Your task to perform on an android device: clear all cookies in the chrome app Image 0: 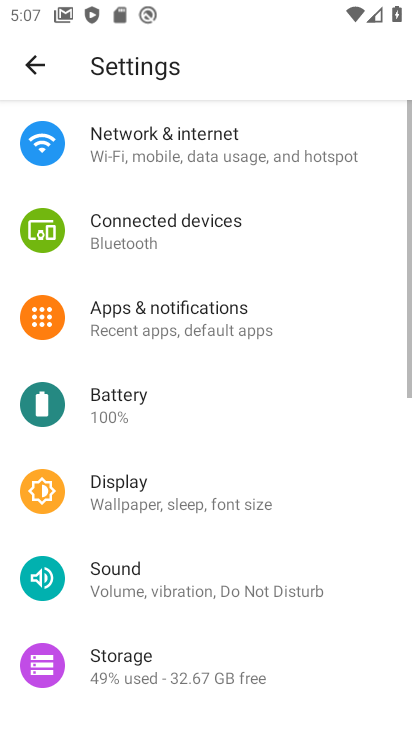
Step 0: click (245, 152)
Your task to perform on an android device: clear all cookies in the chrome app Image 1: 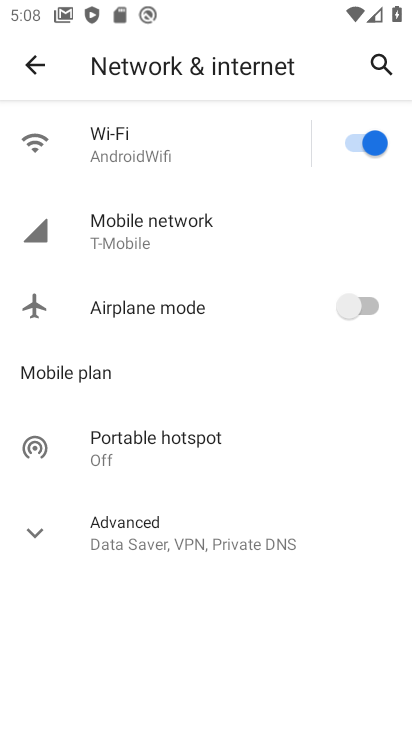
Step 1: click (37, 62)
Your task to perform on an android device: clear all cookies in the chrome app Image 2: 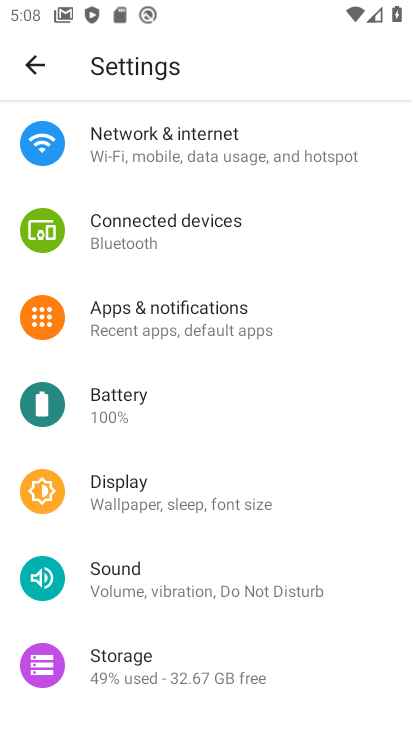
Step 2: press back button
Your task to perform on an android device: clear all cookies in the chrome app Image 3: 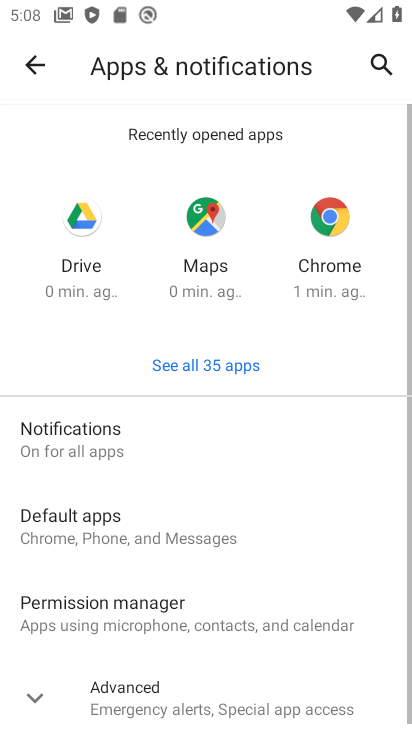
Step 3: click (321, 216)
Your task to perform on an android device: clear all cookies in the chrome app Image 4: 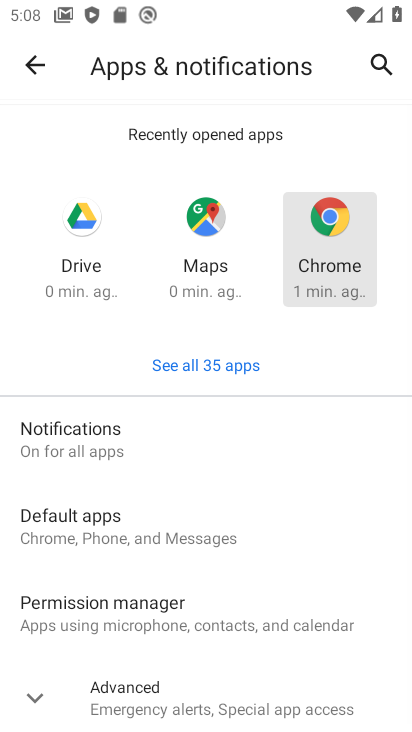
Step 4: click (335, 223)
Your task to perform on an android device: clear all cookies in the chrome app Image 5: 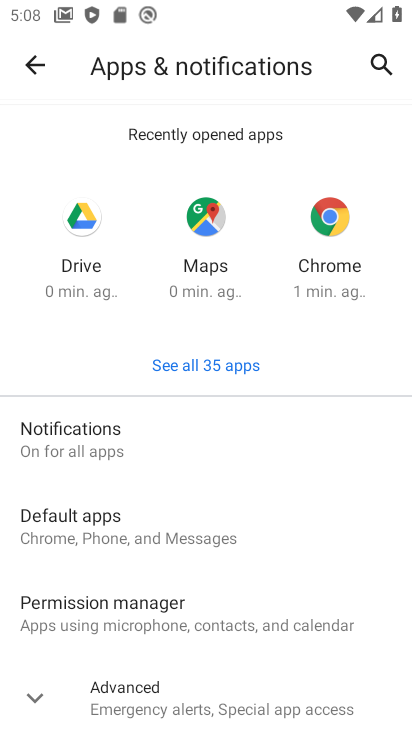
Step 5: click (340, 228)
Your task to perform on an android device: clear all cookies in the chrome app Image 6: 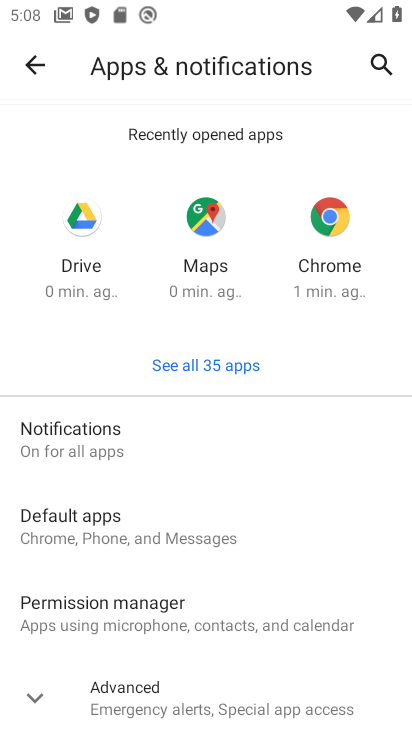
Step 6: click (342, 230)
Your task to perform on an android device: clear all cookies in the chrome app Image 7: 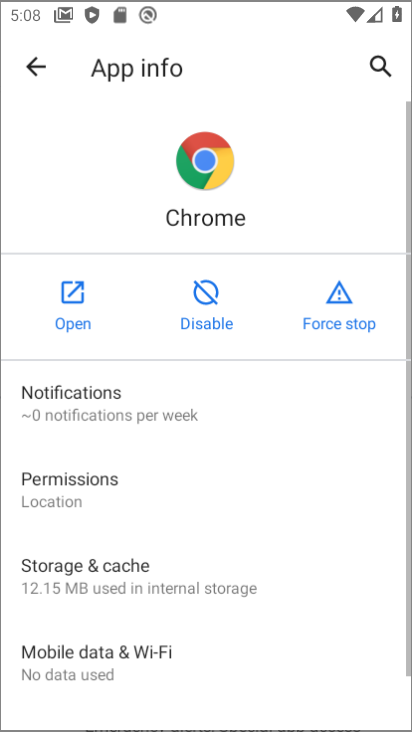
Step 7: click (342, 237)
Your task to perform on an android device: clear all cookies in the chrome app Image 8: 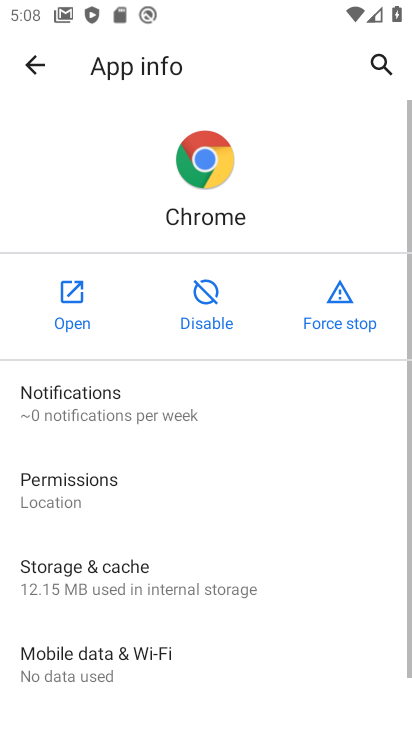
Step 8: click (340, 226)
Your task to perform on an android device: clear all cookies in the chrome app Image 9: 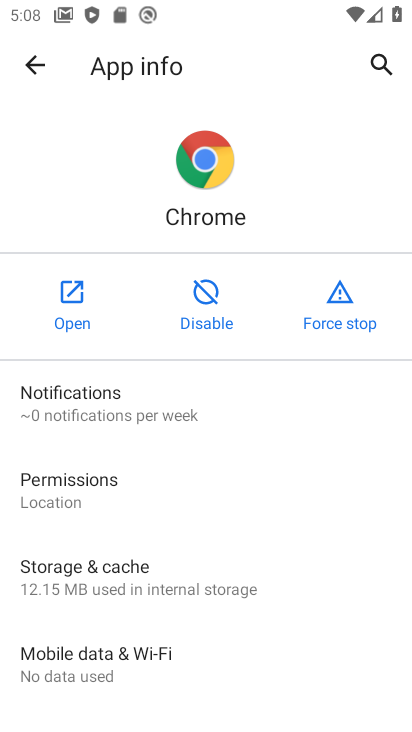
Step 9: click (34, 59)
Your task to perform on an android device: clear all cookies in the chrome app Image 10: 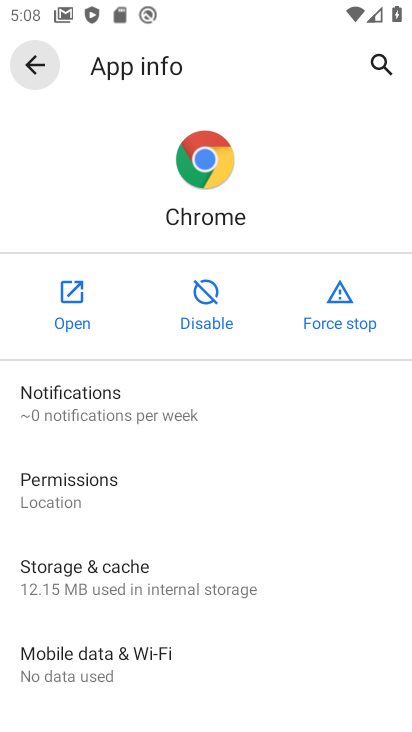
Step 10: click (34, 59)
Your task to perform on an android device: clear all cookies in the chrome app Image 11: 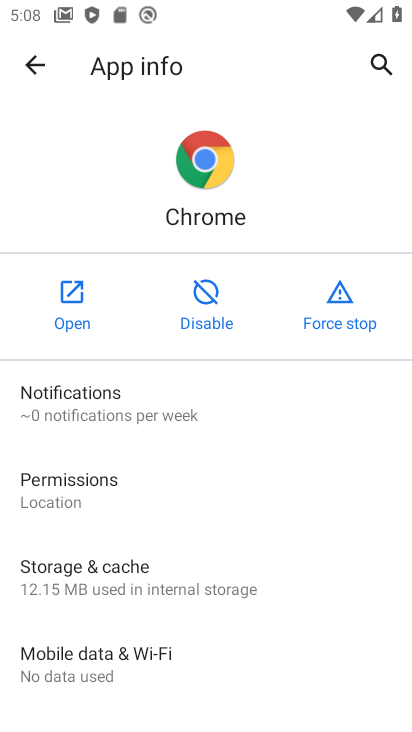
Step 11: click (38, 57)
Your task to perform on an android device: clear all cookies in the chrome app Image 12: 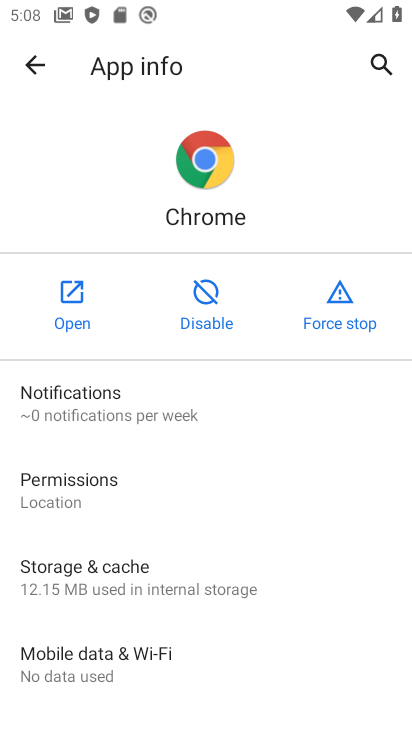
Step 12: click (42, 60)
Your task to perform on an android device: clear all cookies in the chrome app Image 13: 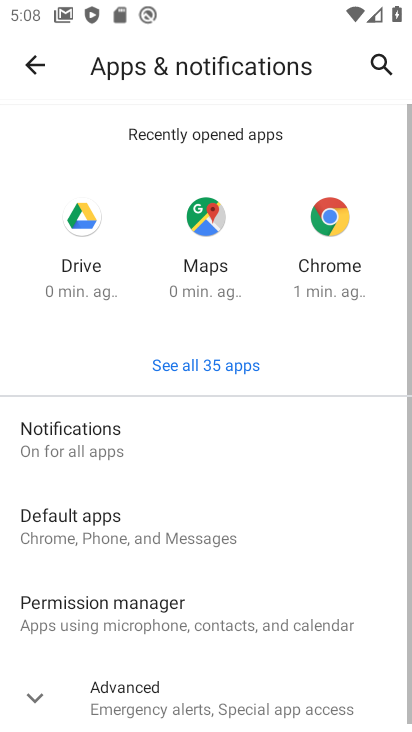
Step 13: click (49, 61)
Your task to perform on an android device: clear all cookies in the chrome app Image 14: 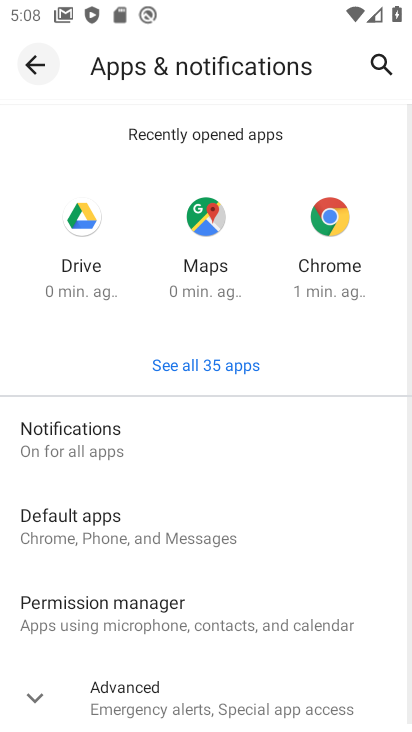
Step 14: click (46, 60)
Your task to perform on an android device: clear all cookies in the chrome app Image 15: 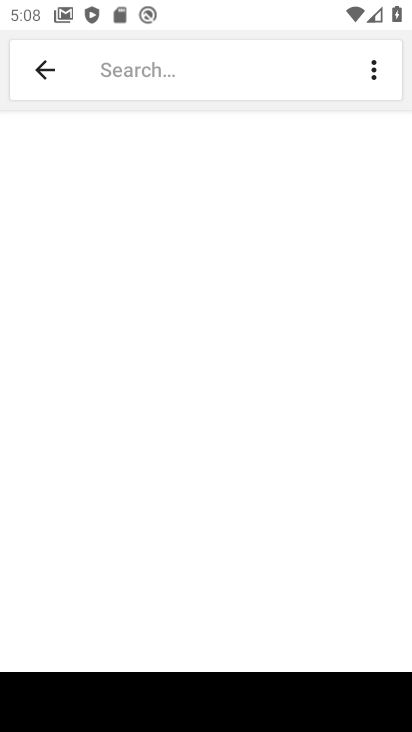
Step 15: press back button
Your task to perform on an android device: clear all cookies in the chrome app Image 16: 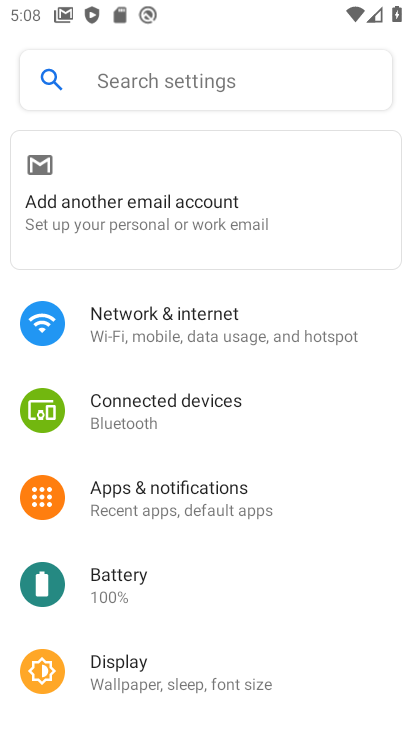
Step 16: press home button
Your task to perform on an android device: clear all cookies in the chrome app Image 17: 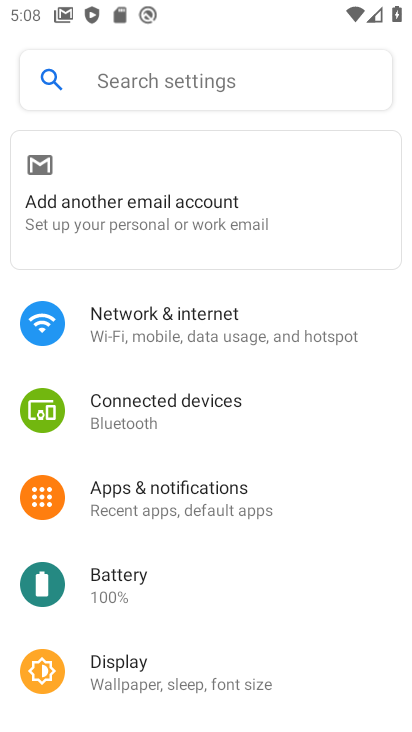
Step 17: press home button
Your task to perform on an android device: clear all cookies in the chrome app Image 18: 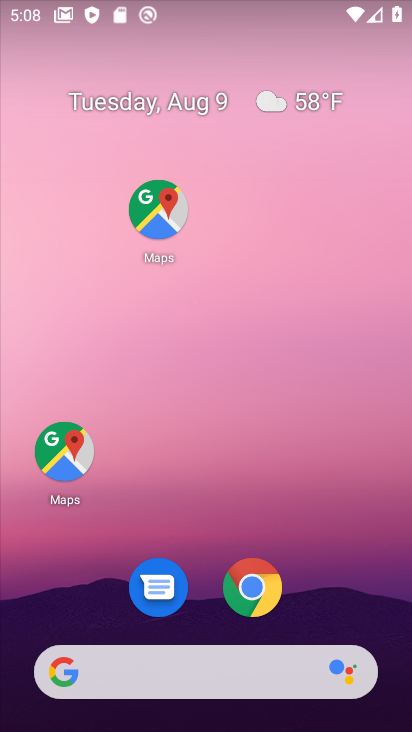
Step 18: drag from (229, 447) to (196, 193)
Your task to perform on an android device: clear all cookies in the chrome app Image 19: 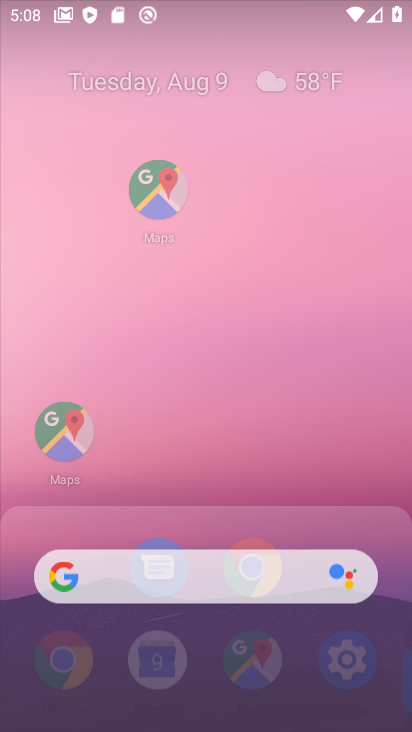
Step 19: drag from (141, 372) to (141, 233)
Your task to perform on an android device: clear all cookies in the chrome app Image 20: 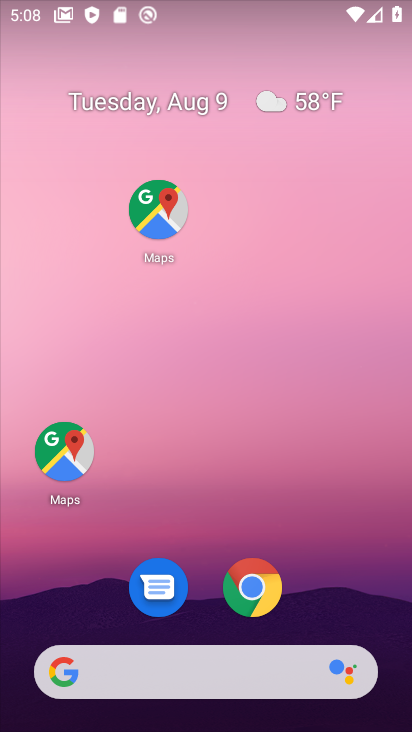
Step 20: drag from (199, 155) to (197, 26)
Your task to perform on an android device: clear all cookies in the chrome app Image 21: 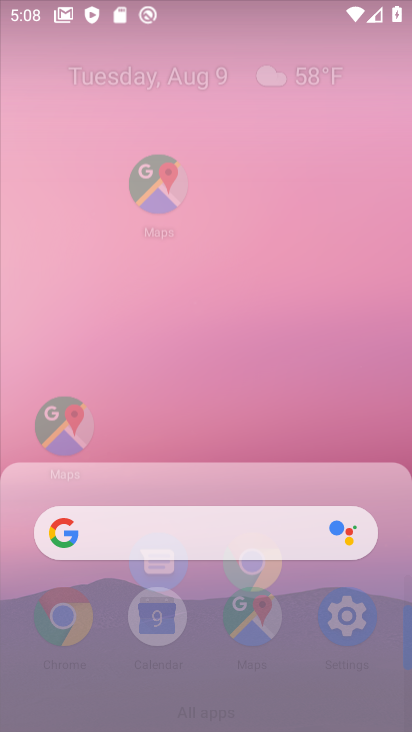
Step 21: drag from (220, 514) to (213, 28)
Your task to perform on an android device: clear all cookies in the chrome app Image 22: 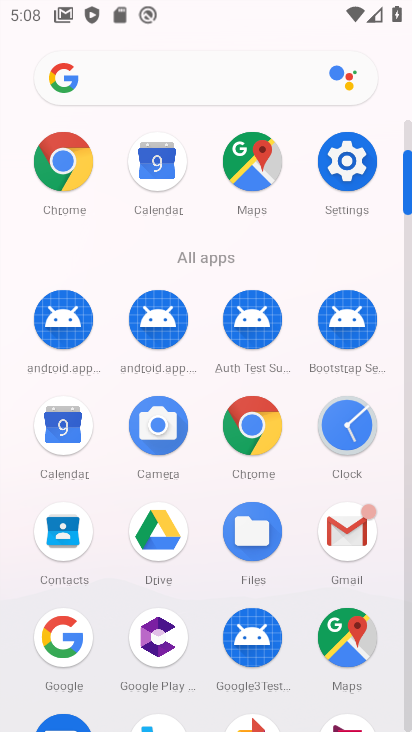
Step 22: drag from (229, 588) to (227, 6)
Your task to perform on an android device: clear all cookies in the chrome app Image 23: 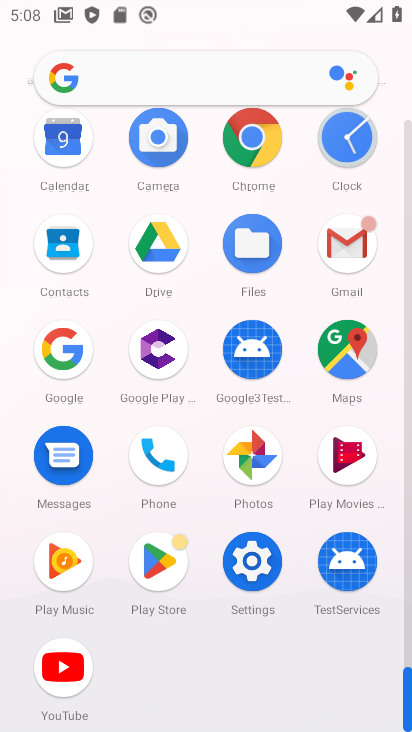
Step 23: click (257, 125)
Your task to perform on an android device: clear all cookies in the chrome app Image 24: 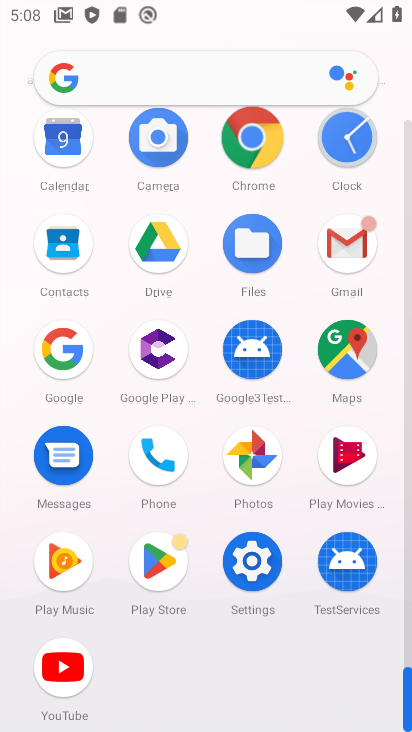
Step 24: click (258, 124)
Your task to perform on an android device: clear all cookies in the chrome app Image 25: 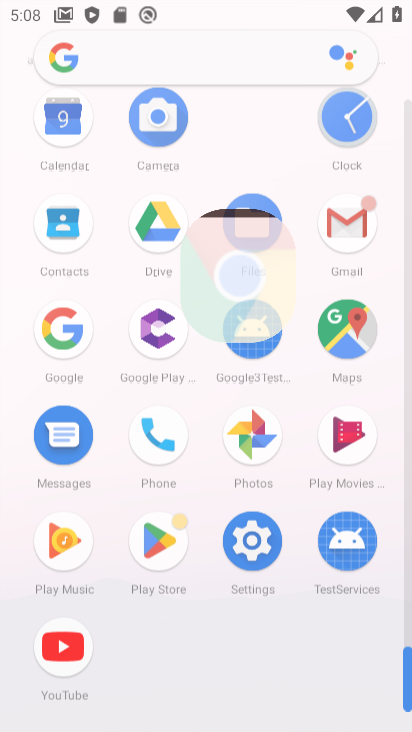
Step 25: click (258, 124)
Your task to perform on an android device: clear all cookies in the chrome app Image 26: 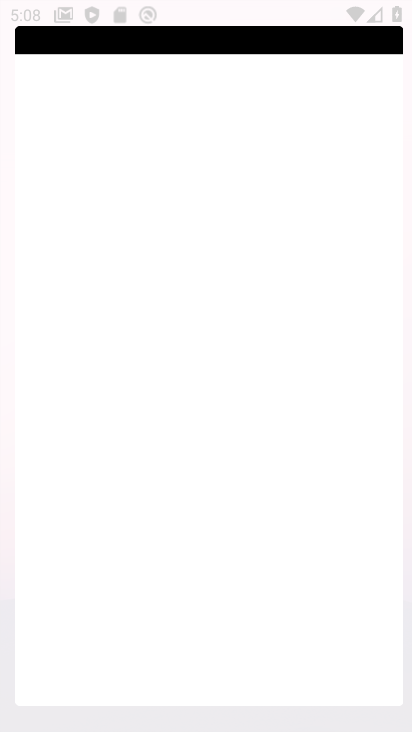
Step 26: click (250, 134)
Your task to perform on an android device: clear all cookies in the chrome app Image 27: 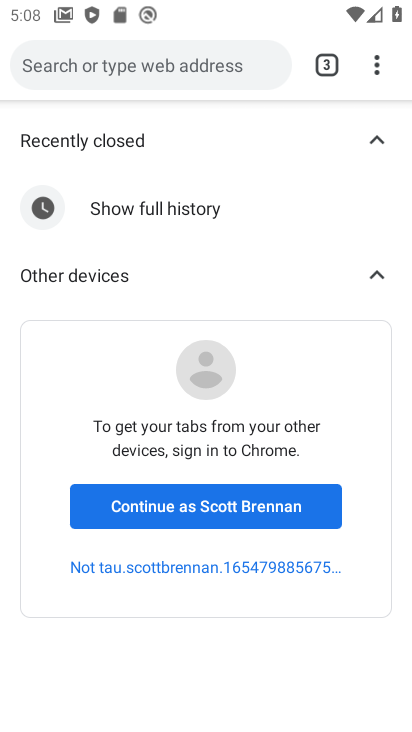
Step 27: drag from (371, 58) to (128, 549)
Your task to perform on an android device: clear all cookies in the chrome app Image 28: 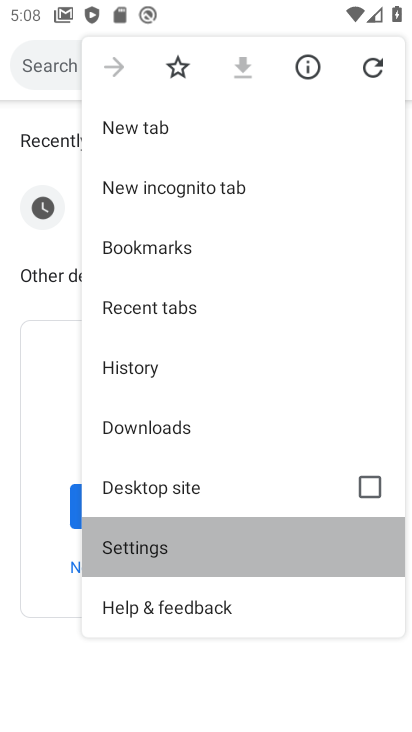
Step 28: click (132, 548)
Your task to perform on an android device: clear all cookies in the chrome app Image 29: 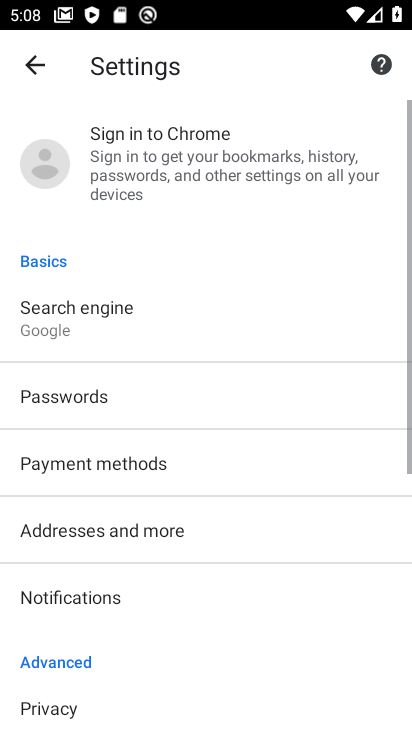
Step 29: drag from (90, 537) to (111, 87)
Your task to perform on an android device: clear all cookies in the chrome app Image 30: 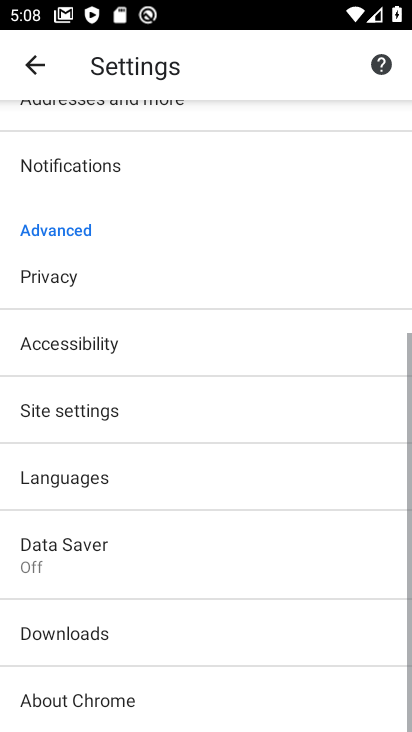
Step 30: drag from (118, 382) to (124, 51)
Your task to perform on an android device: clear all cookies in the chrome app Image 31: 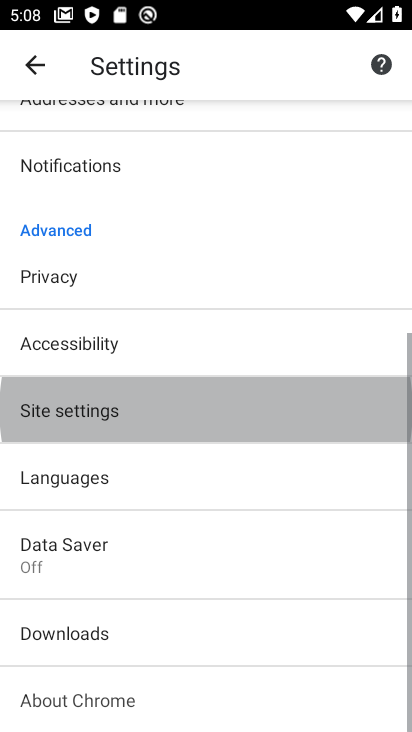
Step 31: drag from (133, 349) to (224, 29)
Your task to perform on an android device: clear all cookies in the chrome app Image 32: 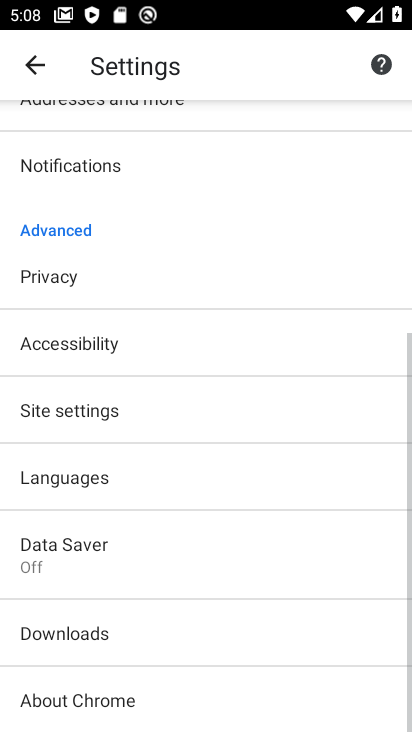
Step 32: drag from (103, 588) to (220, 166)
Your task to perform on an android device: clear all cookies in the chrome app Image 33: 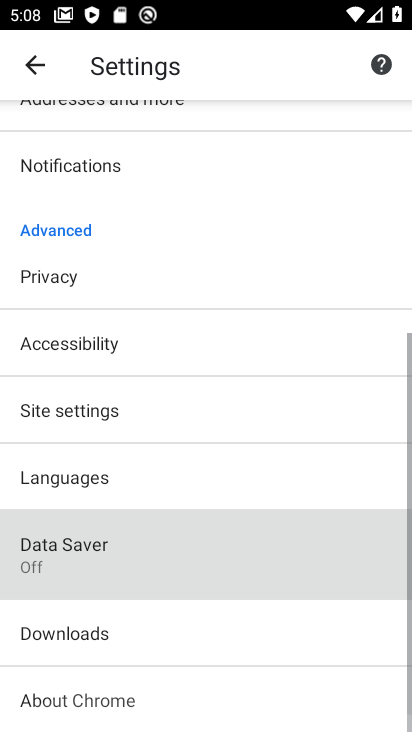
Step 33: drag from (213, 429) to (248, 232)
Your task to perform on an android device: clear all cookies in the chrome app Image 34: 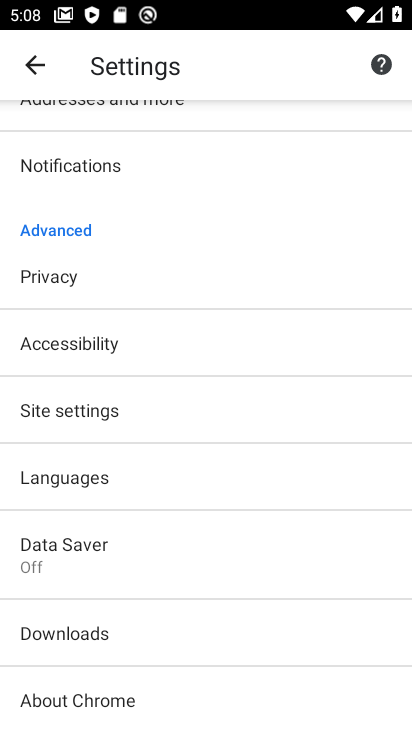
Step 34: click (54, 406)
Your task to perform on an android device: clear all cookies in the chrome app Image 35: 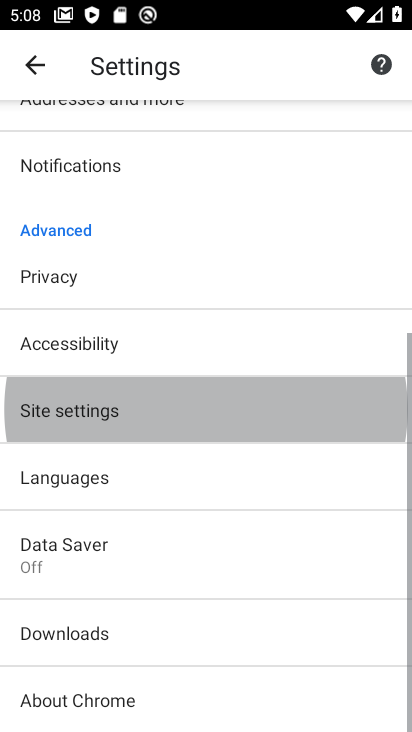
Step 35: click (55, 405)
Your task to perform on an android device: clear all cookies in the chrome app Image 36: 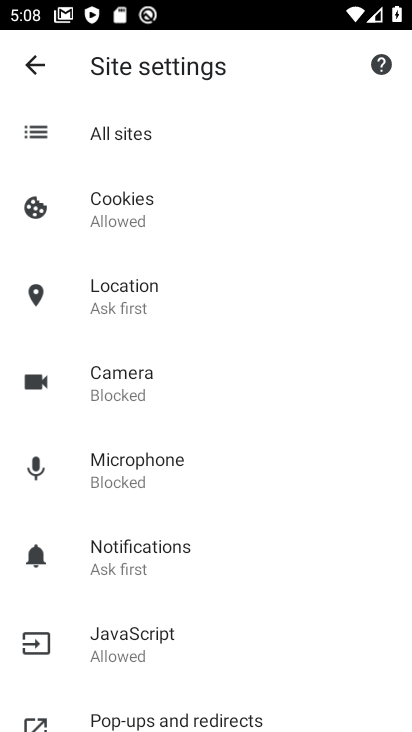
Step 36: click (116, 218)
Your task to perform on an android device: clear all cookies in the chrome app Image 37: 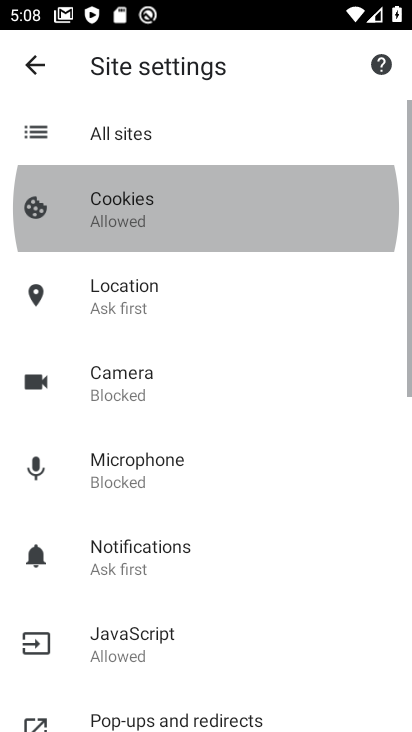
Step 37: click (121, 219)
Your task to perform on an android device: clear all cookies in the chrome app Image 38: 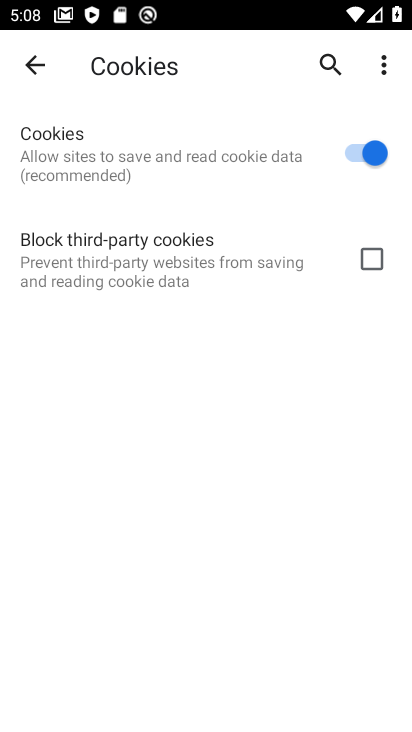
Step 38: click (368, 154)
Your task to perform on an android device: clear all cookies in the chrome app Image 39: 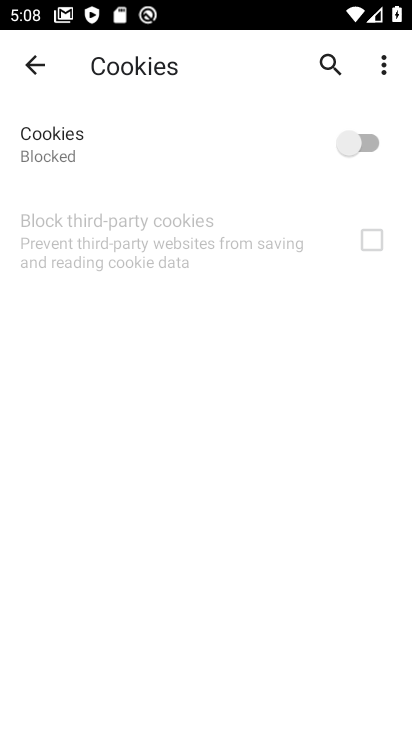
Step 39: task complete